Your task to perform on an android device: clear all cookies in the chrome app Image 0: 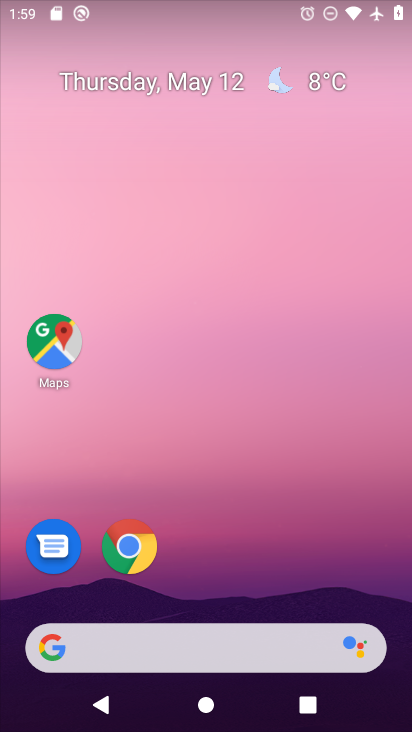
Step 0: drag from (205, 647) to (352, 236)
Your task to perform on an android device: clear all cookies in the chrome app Image 1: 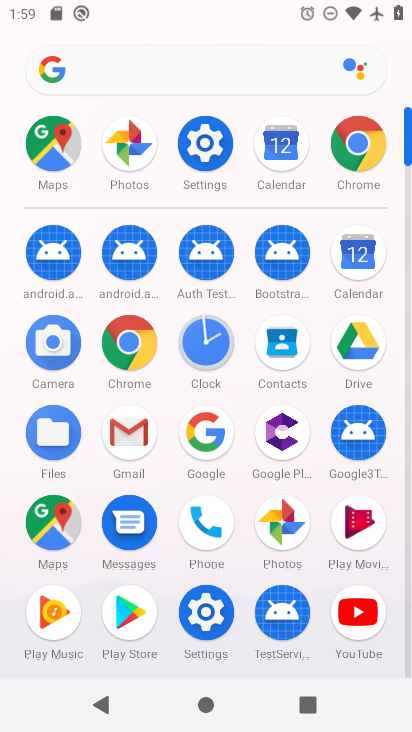
Step 1: click (362, 160)
Your task to perform on an android device: clear all cookies in the chrome app Image 2: 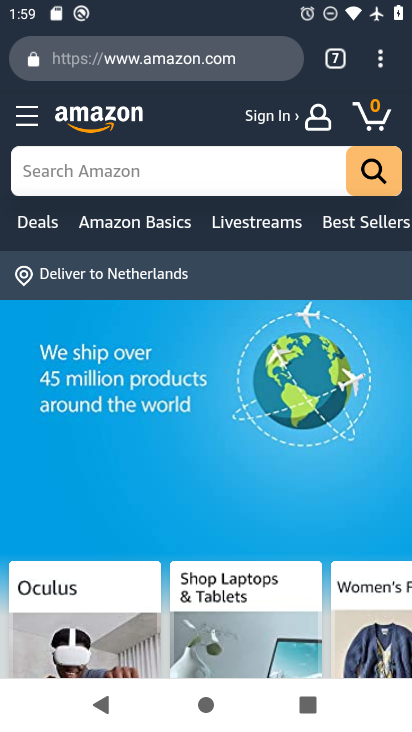
Step 2: drag from (382, 66) to (273, 569)
Your task to perform on an android device: clear all cookies in the chrome app Image 3: 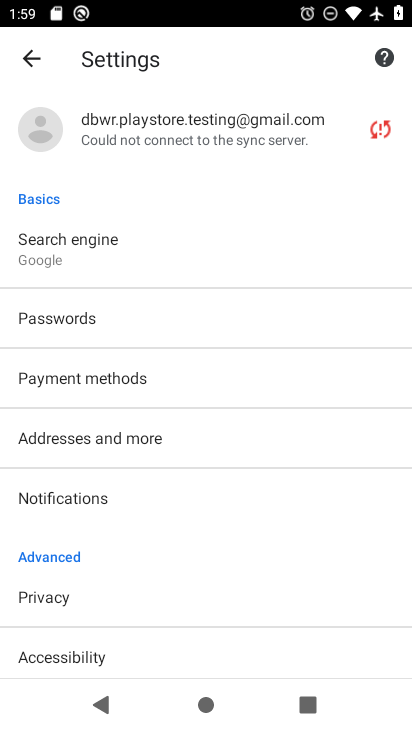
Step 3: click (64, 601)
Your task to perform on an android device: clear all cookies in the chrome app Image 4: 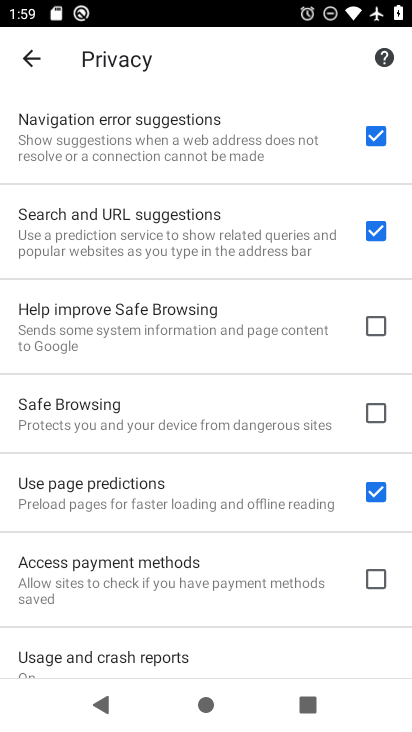
Step 4: drag from (238, 639) to (338, 179)
Your task to perform on an android device: clear all cookies in the chrome app Image 5: 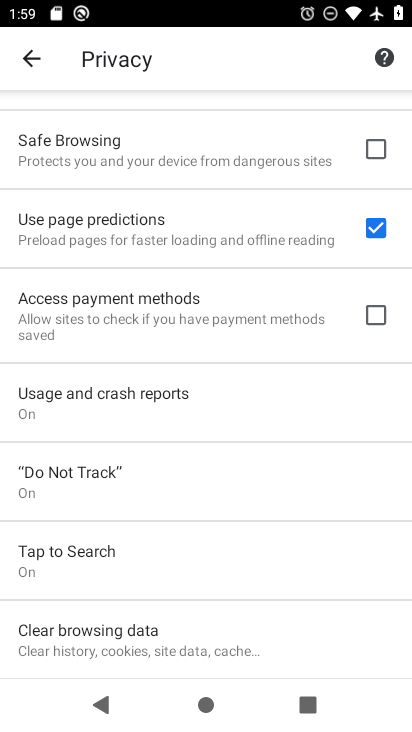
Step 5: click (153, 644)
Your task to perform on an android device: clear all cookies in the chrome app Image 6: 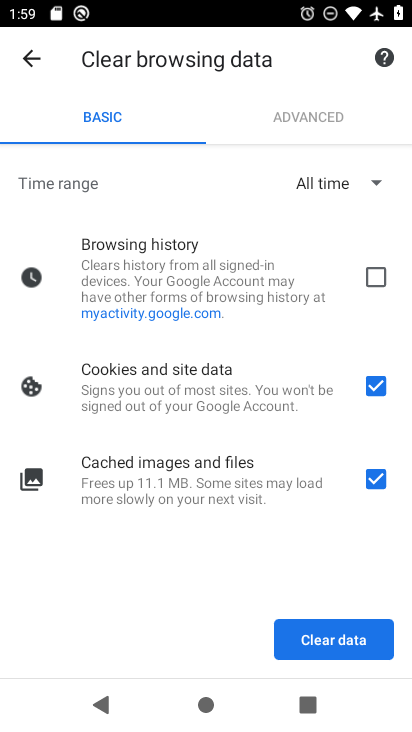
Step 6: click (374, 485)
Your task to perform on an android device: clear all cookies in the chrome app Image 7: 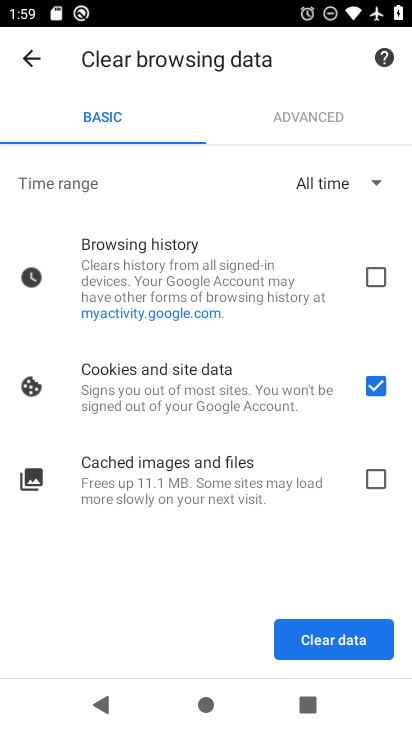
Step 7: click (356, 639)
Your task to perform on an android device: clear all cookies in the chrome app Image 8: 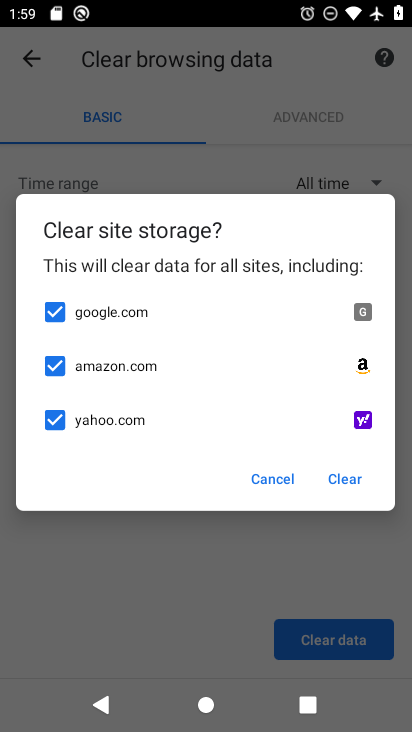
Step 8: click (348, 477)
Your task to perform on an android device: clear all cookies in the chrome app Image 9: 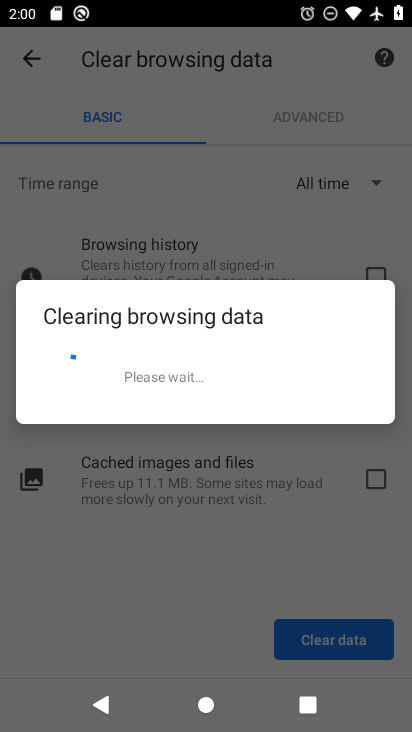
Step 9: click (173, 535)
Your task to perform on an android device: clear all cookies in the chrome app Image 10: 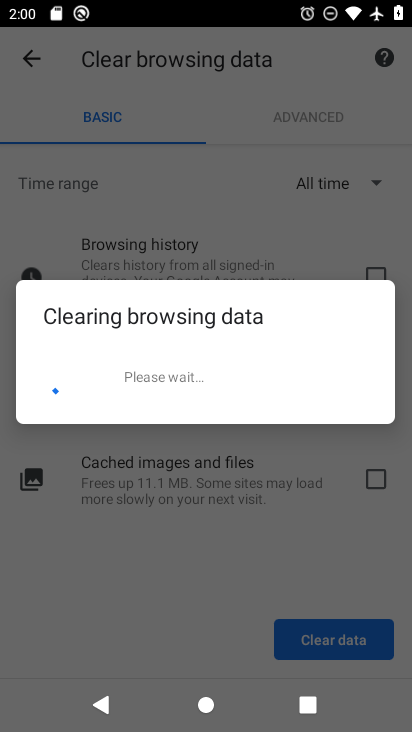
Step 10: click (102, 462)
Your task to perform on an android device: clear all cookies in the chrome app Image 11: 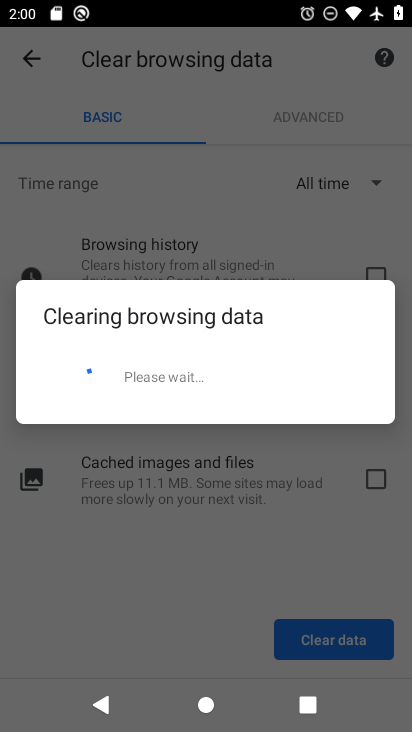
Step 11: click (54, 506)
Your task to perform on an android device: clear all cookies in the chrome app Image 12: 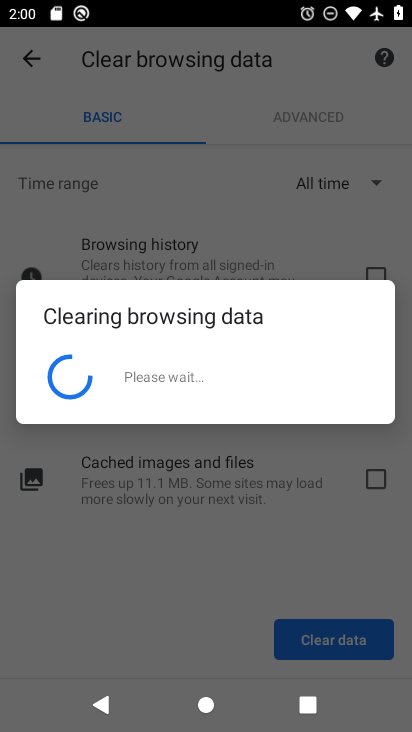
Step 12: press back button
Your task to perform on an android device: clear all cookies in the chrome app Image 13: 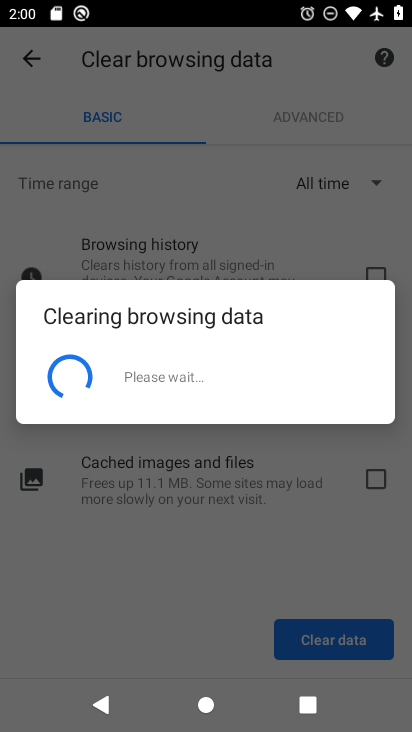
Step 13: click (181, 376)
Your task to perform on an android device: clear all cookies in the chrome app Image 14: 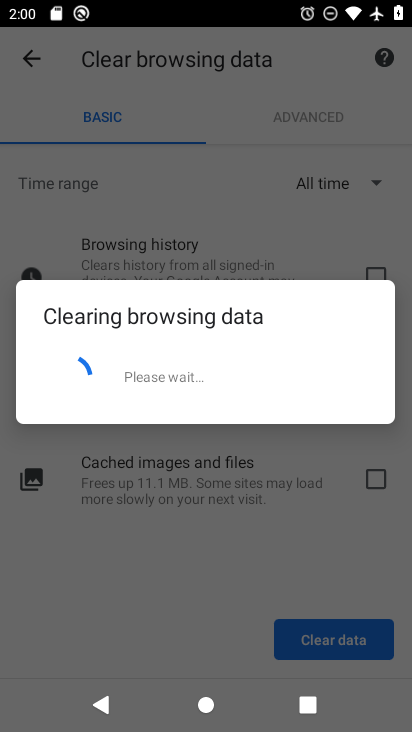
Step 14: task complete